Your task to perform on an android device: Is it going to rain this weekend? Image 0: 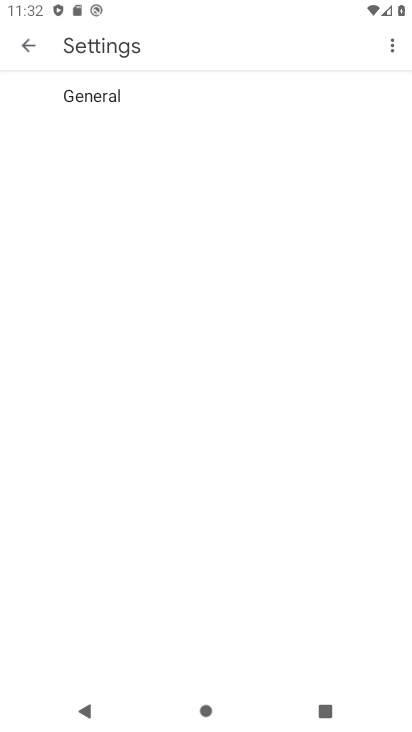
Step 0: press back button
Your task to perform on an android device: Is it going to rain this weekend? Image 1: 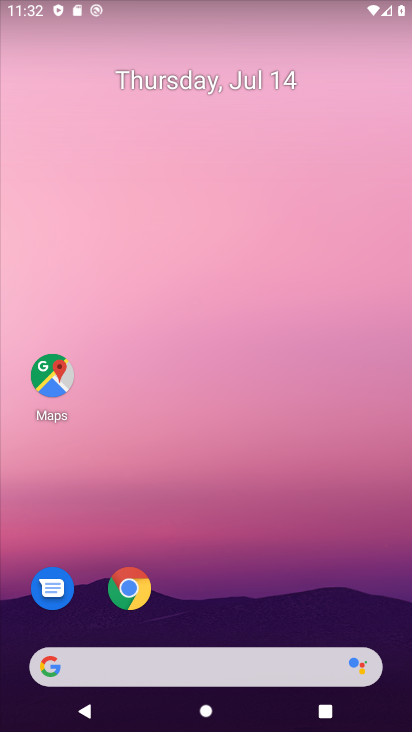
Step 1: drag from (162, 581) to (225, 0)
Your task to perform on an android device: Is it going to rain this weekend? Image 2: 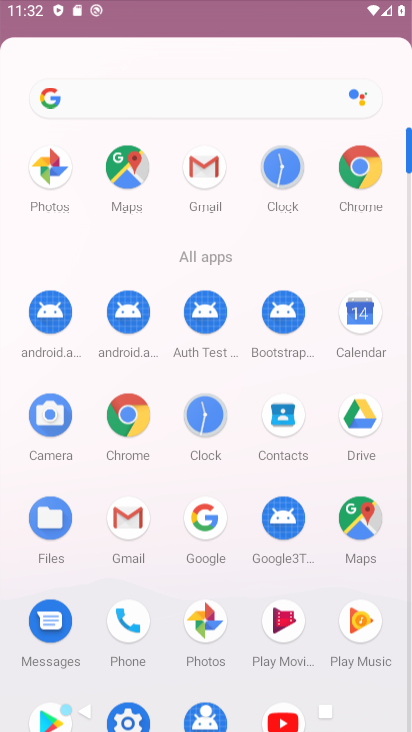
Step 2: click (146, 106)
Your task to perform on an android device: Is it going to rain this weekend? Image 3: 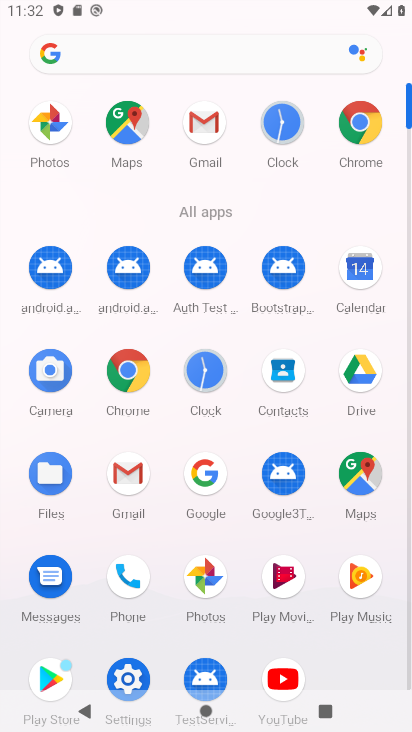
Step 3: click (126, 52)
Your task to perform on an android device: Is it going to rain this weekend? Image 4: 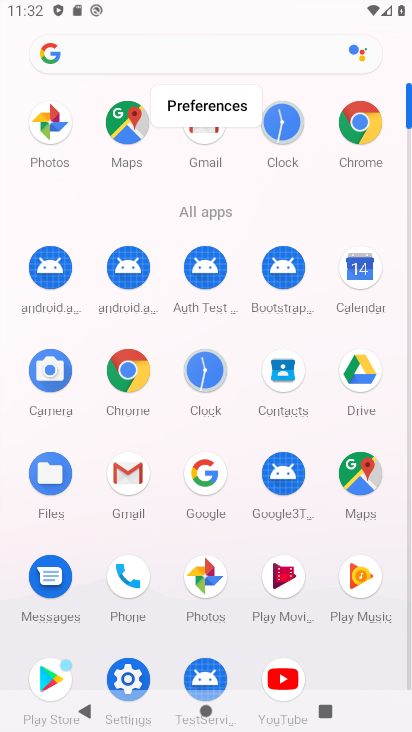
Step 4: click (111, 61)
Your task to perform on an android device: Is it going to rain this weekend? Image 5: 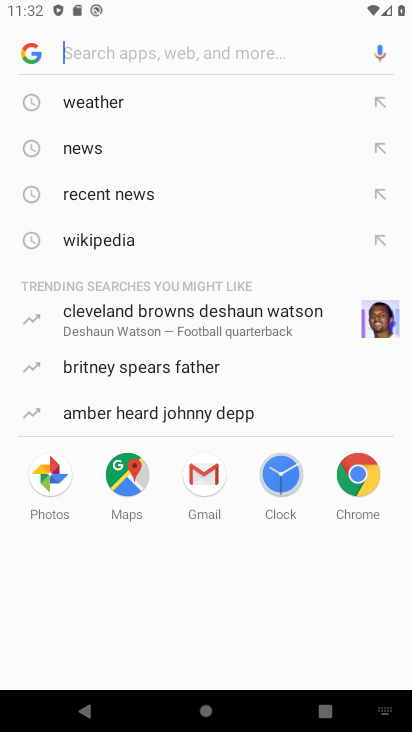
Step 5: click (89, 100)
Your task to perform on an android device: Is it going to rain this weekend? Image 6: 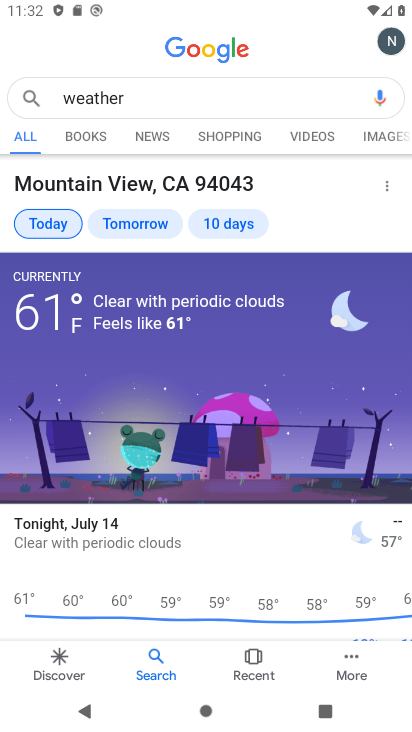
Step 6: click (222, 211)
Your task to perform on an android device: Is it going to rain this weekend? Image 7: 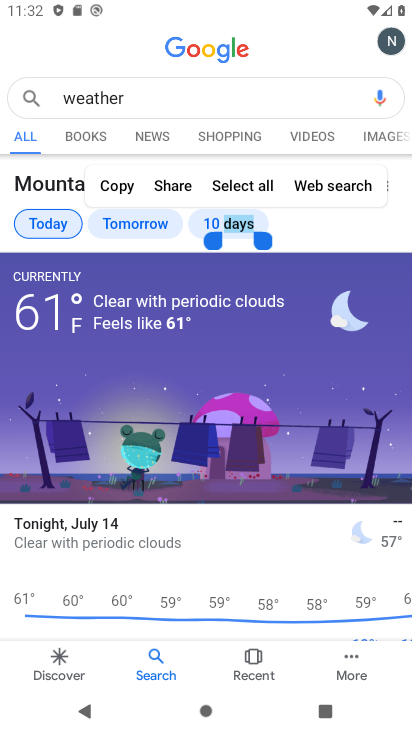
Step 7: click (357, 230)
Your task to perform on an android device: Is it going to rain this weekend? Image 8: 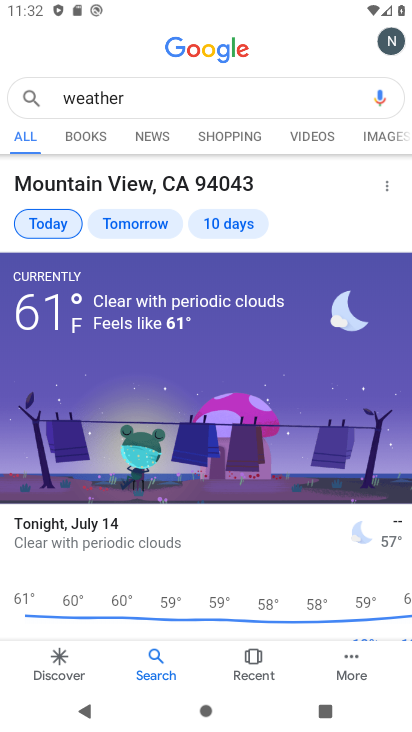
Step 8: click (242, 223)
Your task to perform on an android device: Is it going to rain this weekend? Image 9: 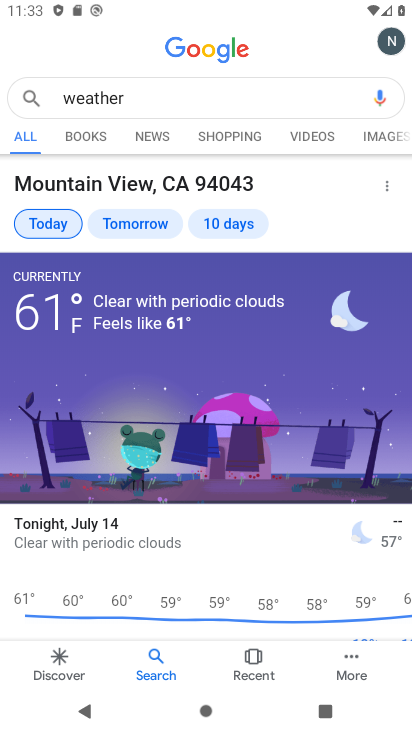
Step 9: click (219, 219)
Your task to perform on an android device: Is it going to rain this weekend? Image 10: 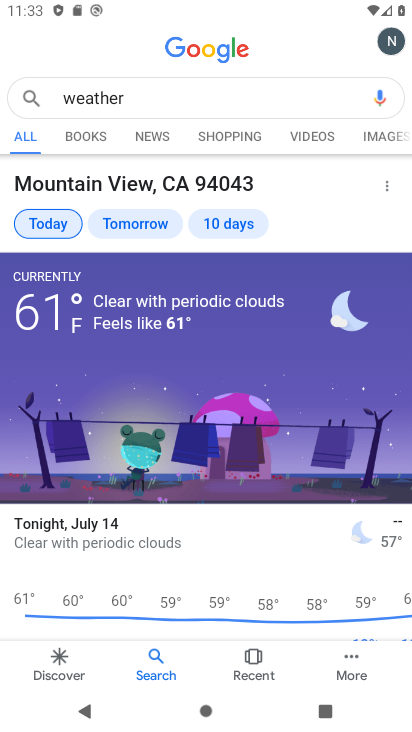
Step 10: click (232, 218)
Your task to perform on an android device: Is it going to rain this weekend? Image 11: 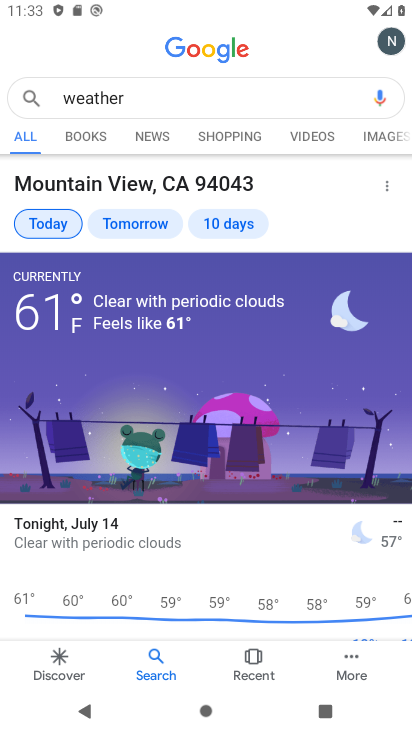
Step 11: task complete